Your task to perform on an android device: Open accessibility settings Image 0: 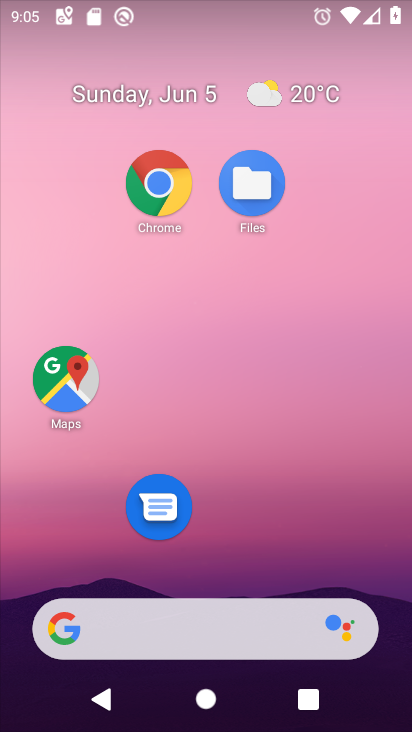
Step 0: drag from (209, 588) to (266, 6)
Your task to perform on an android device: Open accessibility settings Image 1: 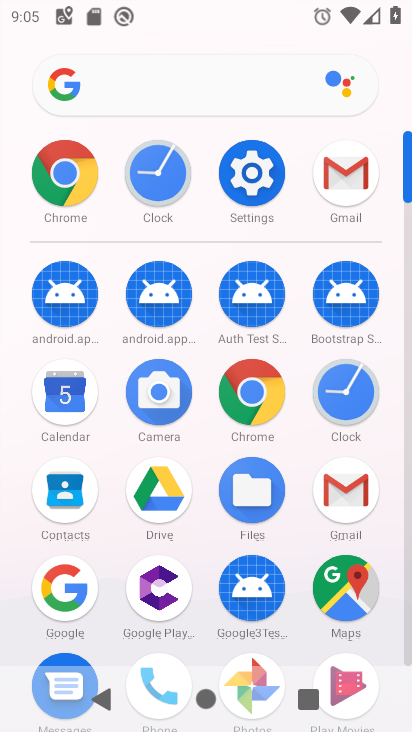
Step 1: click (237, 159)
Your task to perform on an android device: Open accessibility settings Image 2: 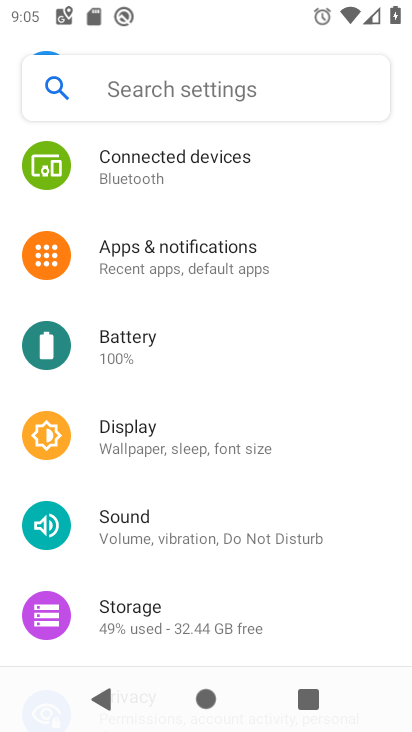
Step 2: drag from (265, 511) to (139, 134)
Your task to perform on an android device: Open accessibility settings Image 3: 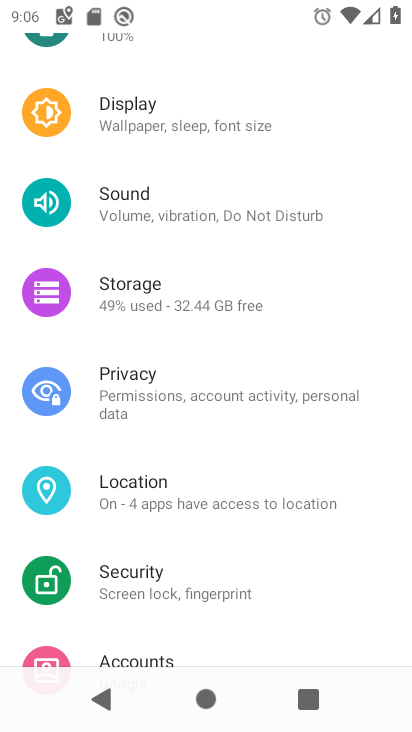
Step 3: drag from (191, 574) to (136, 274)
Your task to perform on an android device: Open accessibility settings Image 4: 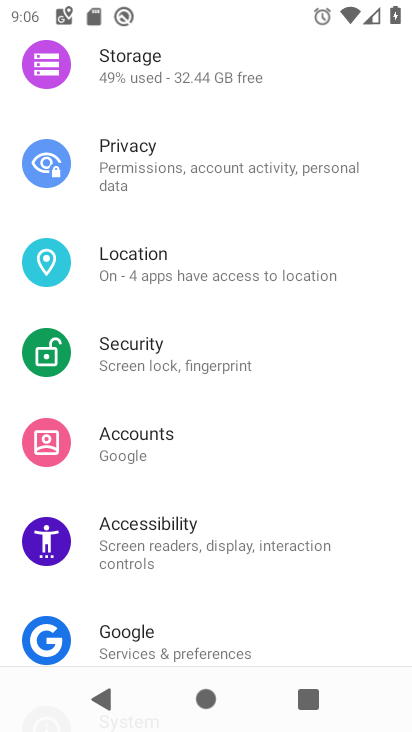
Step 4: click (101, 509)
Your task to perform on an android device: Open accessibility settings Image 5: 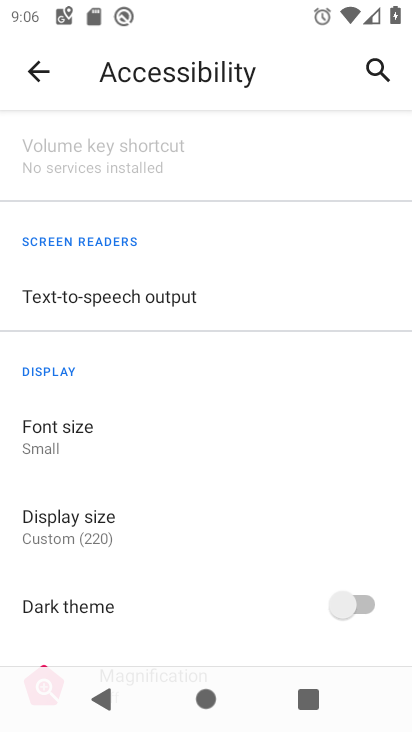
Step 5: task complete